Your task to perform on an android device: add a label to a message in the gmail app Image 0: 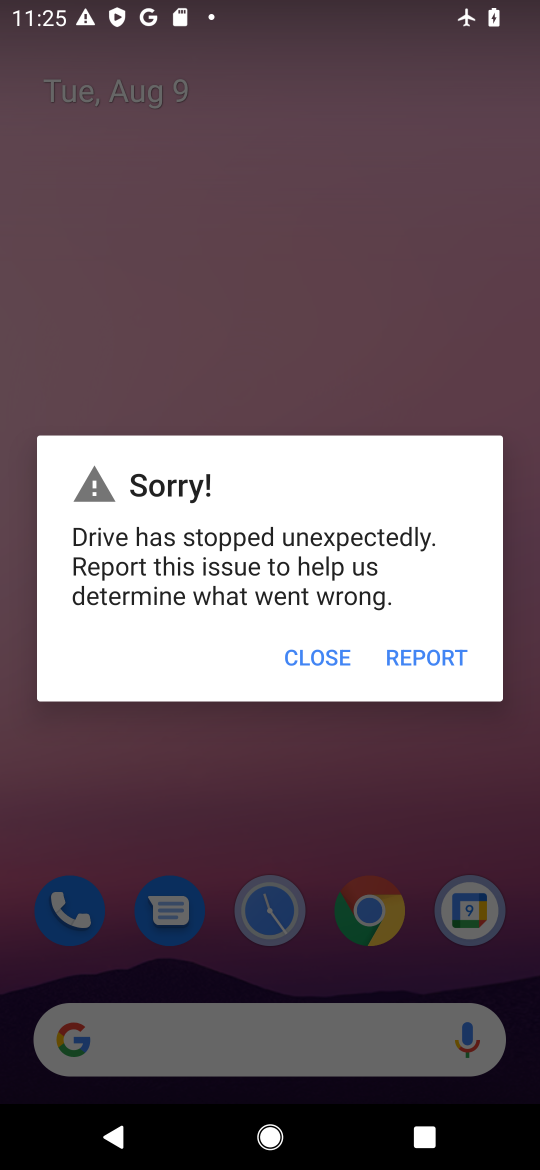
Step 0: task complete